Your task to perform on an android device: delete a single message in the gmail app Image 0: 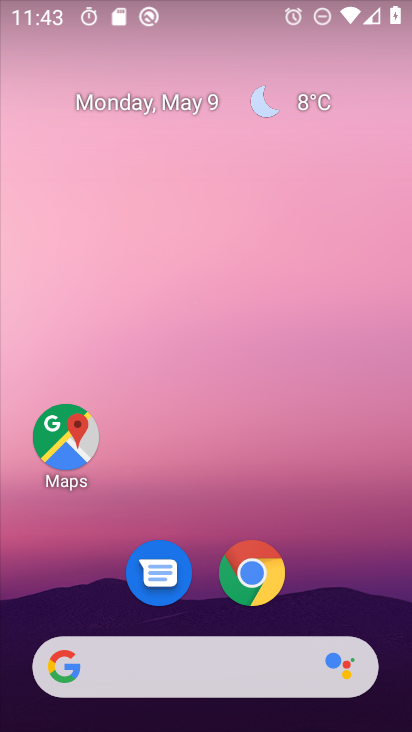
Step 0: drag from (338, 516) to (299, 87)
Your task to perform on an android device: delete a single message in the gmail app Image 1: 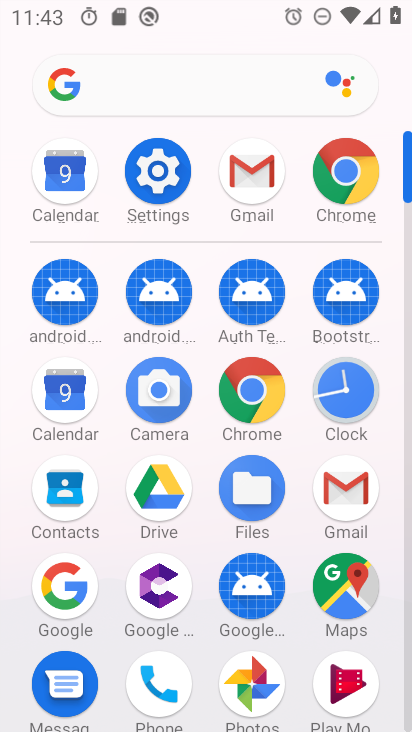
Step 1: click (358, 486)
Your task to perform on an android device: delete a single message in the gmail app Image 2: 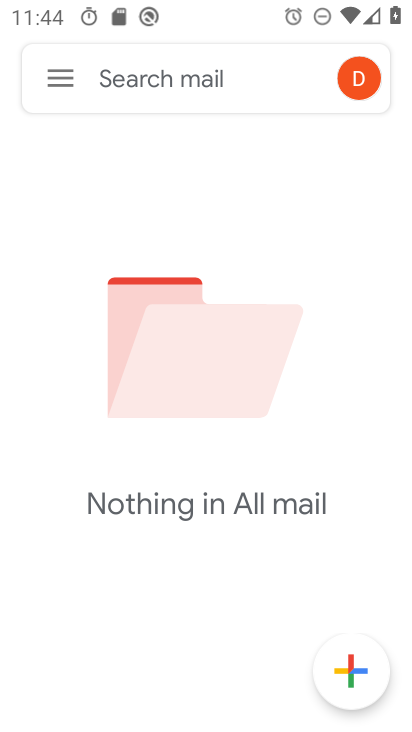
Step 2: task complete